Your task to perform on an android device: allow cookies in the chrome app Image 0: 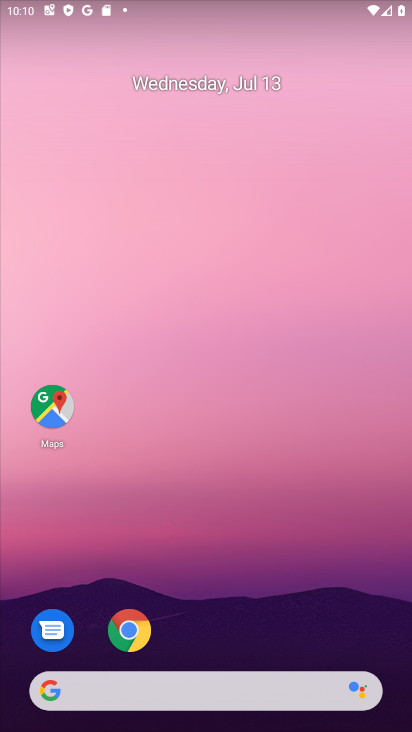
Step 0: drag from (300, 659) to (281, 207)
Your task to perform on an android device: allow cookies in the chrome app Image 1: 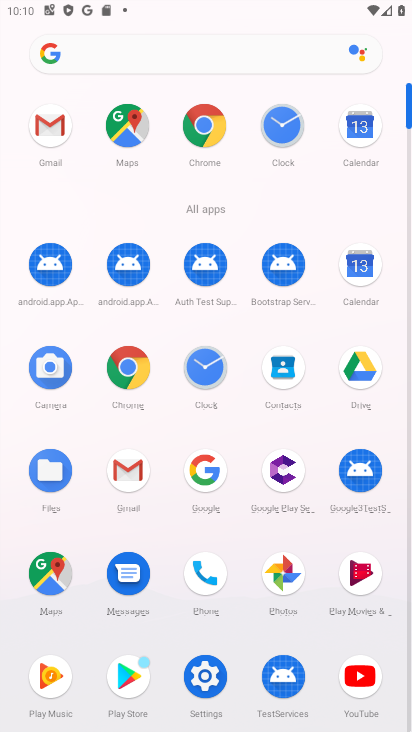
Step 1: click (201, 136)
Your task to perform on an android device: allow cookies in the chrome app Image 2: 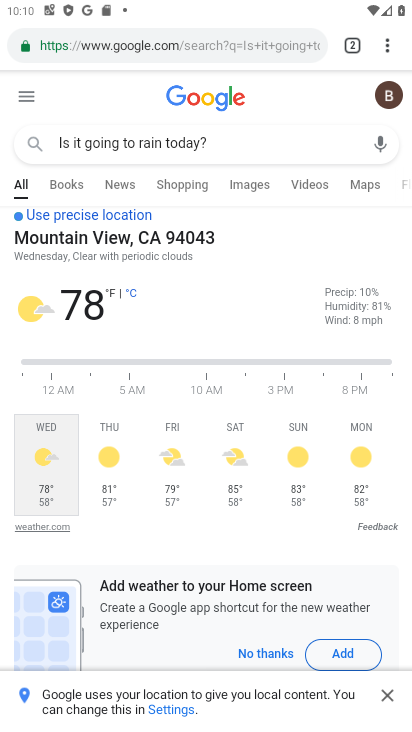
Step 2: click (381, 51)
Your task to perform on an android device: allow cookies in the chrome app Image 3: 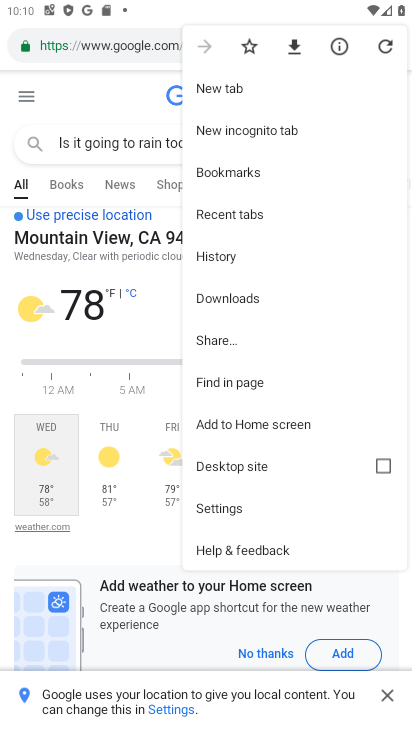
Step 3: click (228, 513)
Your task to perform on an android device: allow cookies in the chrome app Image 4: 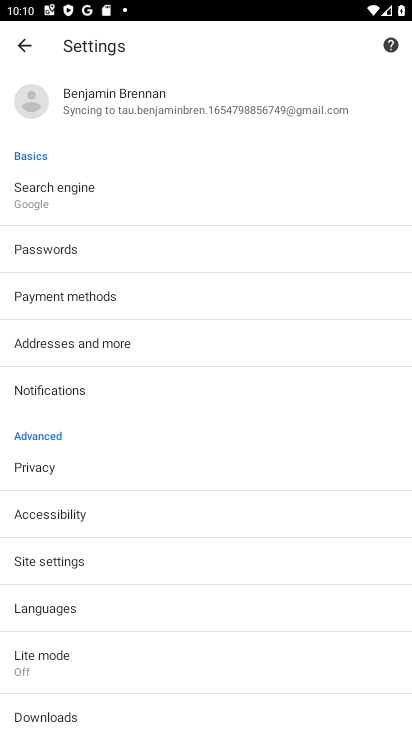
Step 4: click (123, 565)
Your task to perform on an android device: allow cookies in the chrome app Image 5: 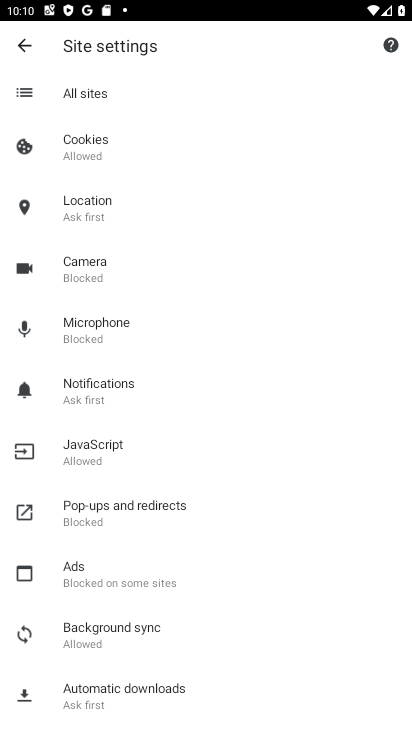
Step 5: click (205, 140)
Your task to perform on an android device: allow cookies in the chrome app Image 6: 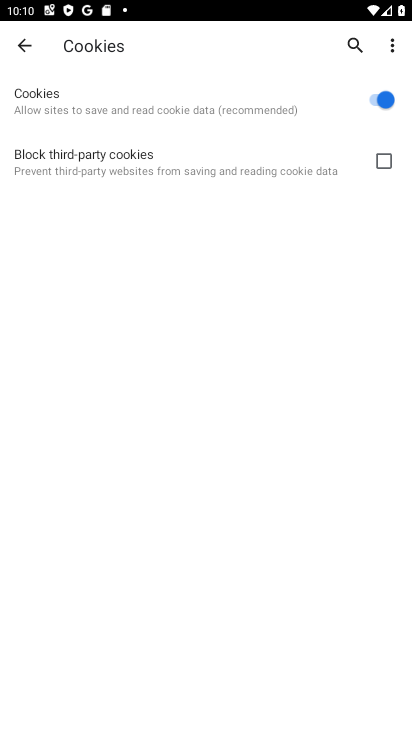
Step 6: task complete